Your task to perform on an android device: turn on bluetooth scan Image 0: 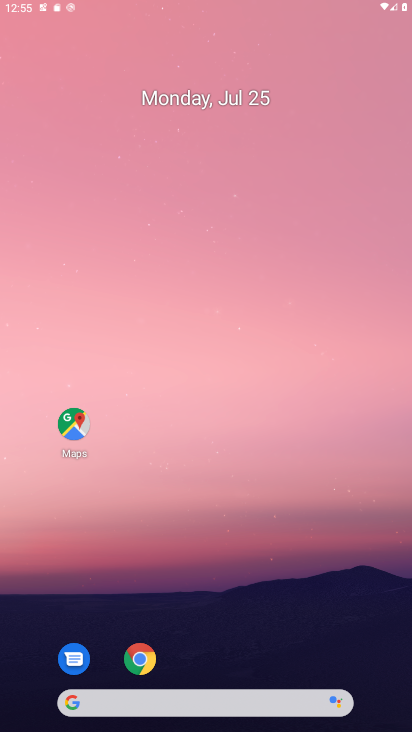
Step 0: press home button
Your task to perform on an android device: turn on bluetooth scan Image 1: 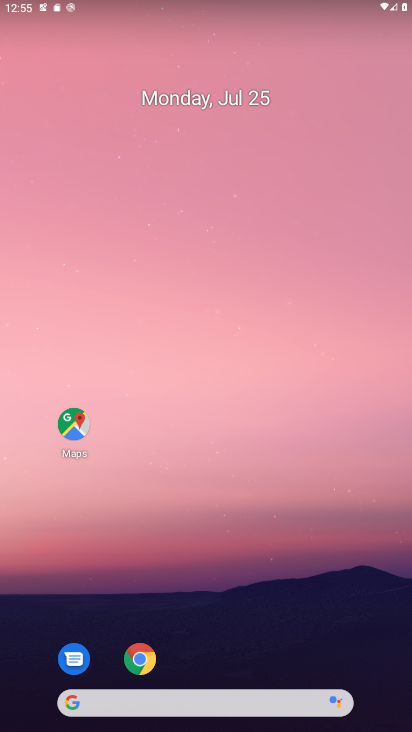
Step 1: drag from (189, 670) to (302, 74)
Your task to perform on an android device: turn on bluetooth scan Image 2: 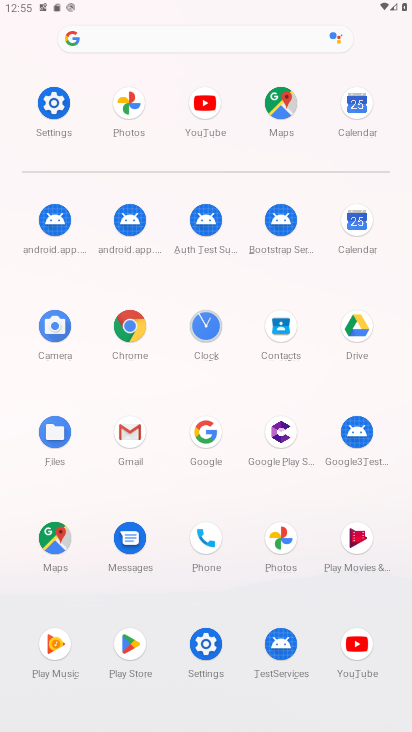
Step 2: click (201, 642)
Your task to perform on an android device: turn on bluetooth scan Image 3: 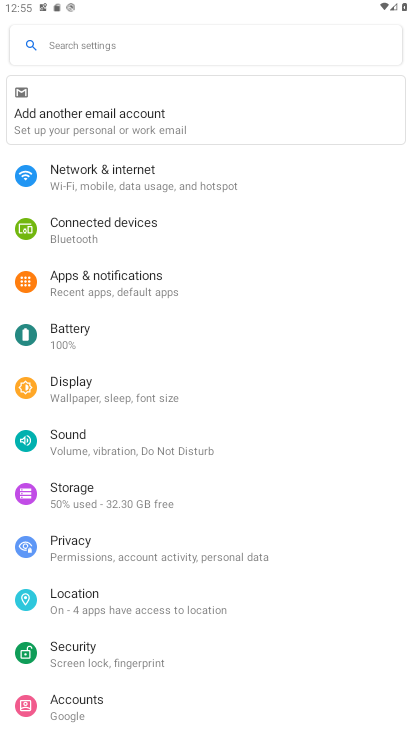
Step 3: click (97, 603)
Your task to perform on an android device: turn on bluetooth scan Image 4: 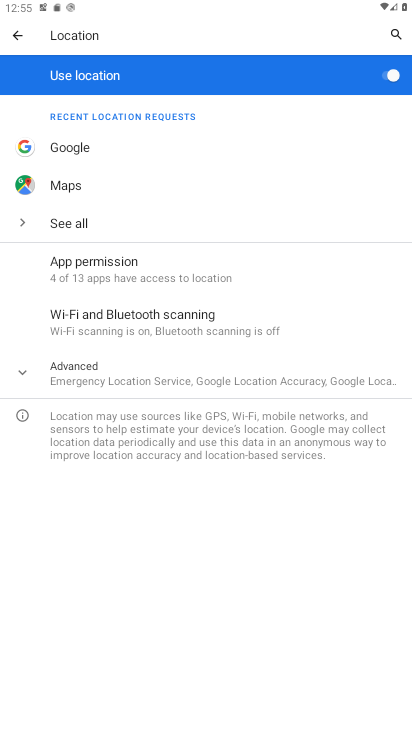
Step 4: click (169, 322)
Your task to perform on an android device: turn on bluetooth scan Image 5: 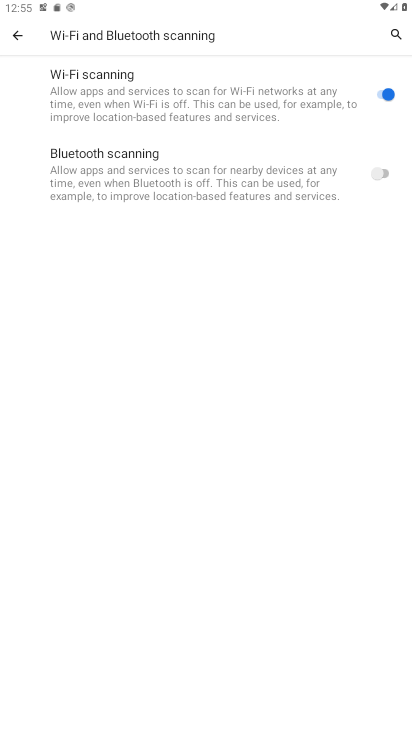
Step 5: click (382, 168)
Your task to perform on an android device: turn on bluetooth scan Image 6: 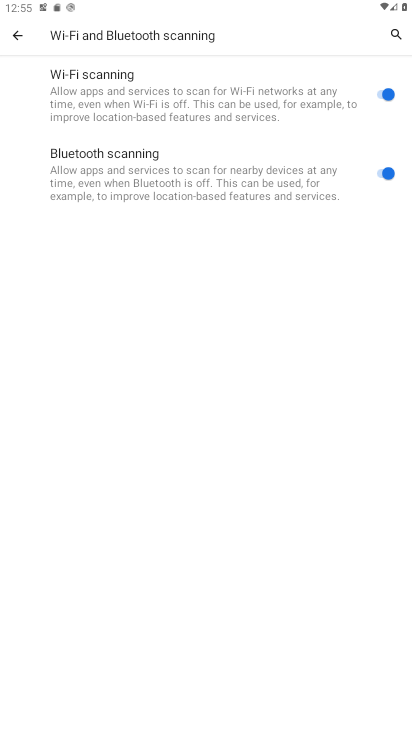
Step 6: task complete